Your task to perform on an android device: install app "Instagram" Image 0: 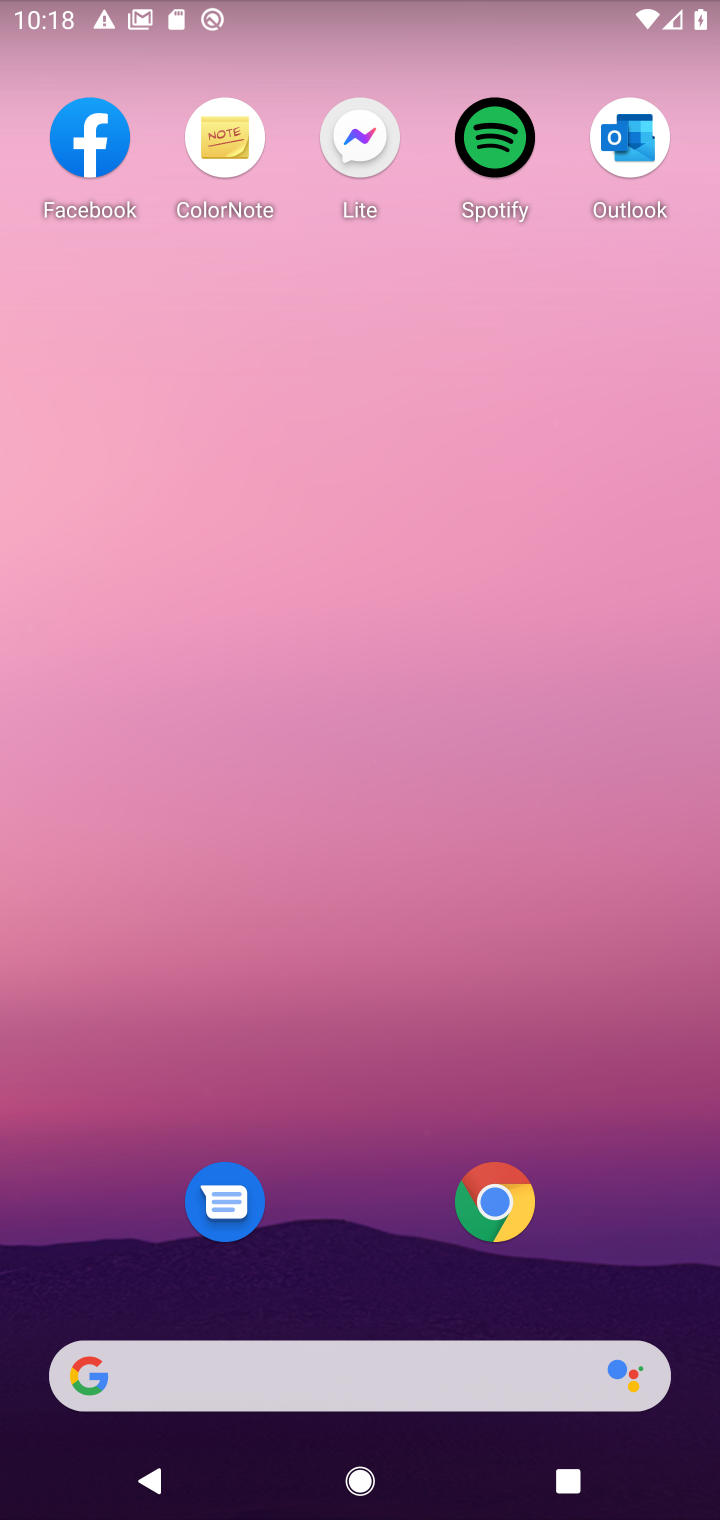
Step 0: drag from (413, 1346) to (520, 141)
Your task to perform on an android device: install app "Instagram" Image 1: 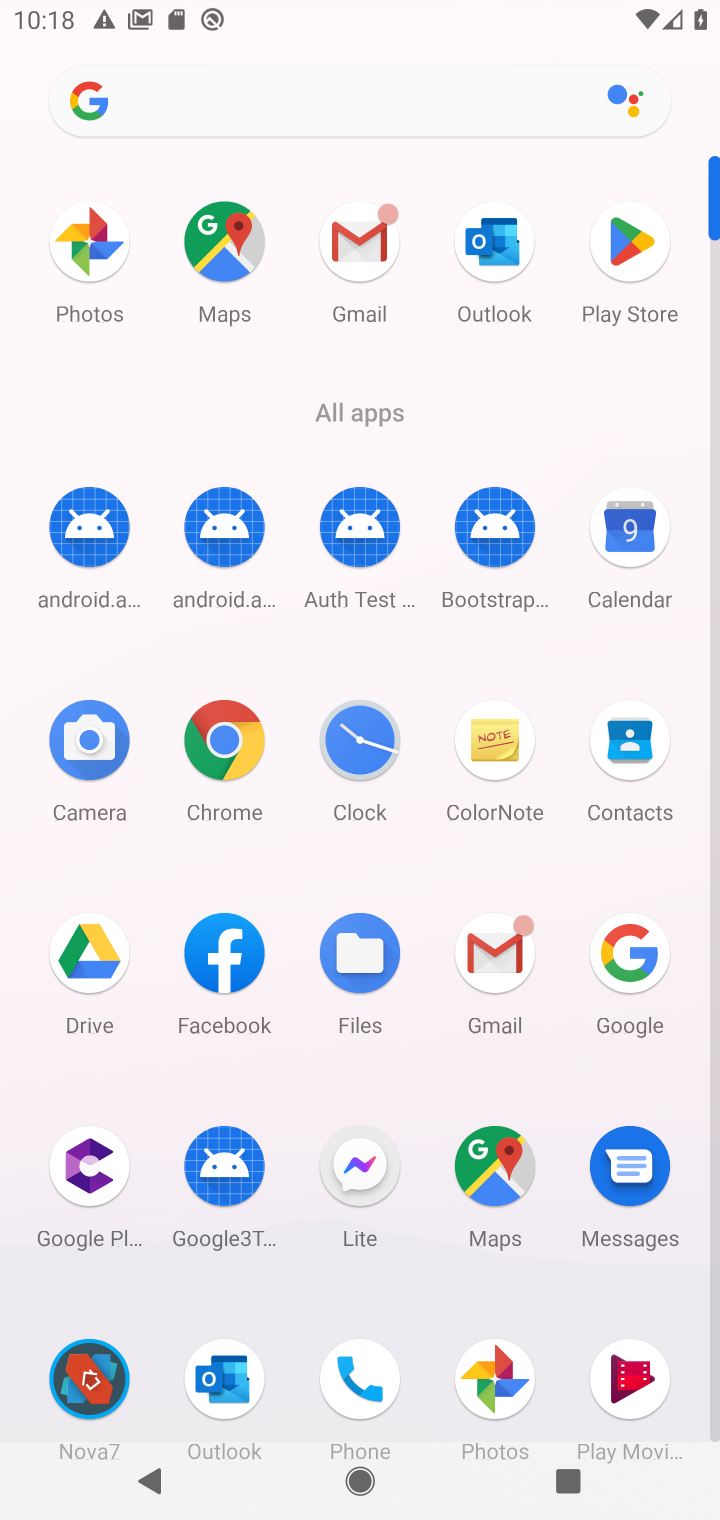
Step 1: drag from (411, 1312) to (394, 409)
Your task to perform on an android device: install app "Instagram" Image 2: 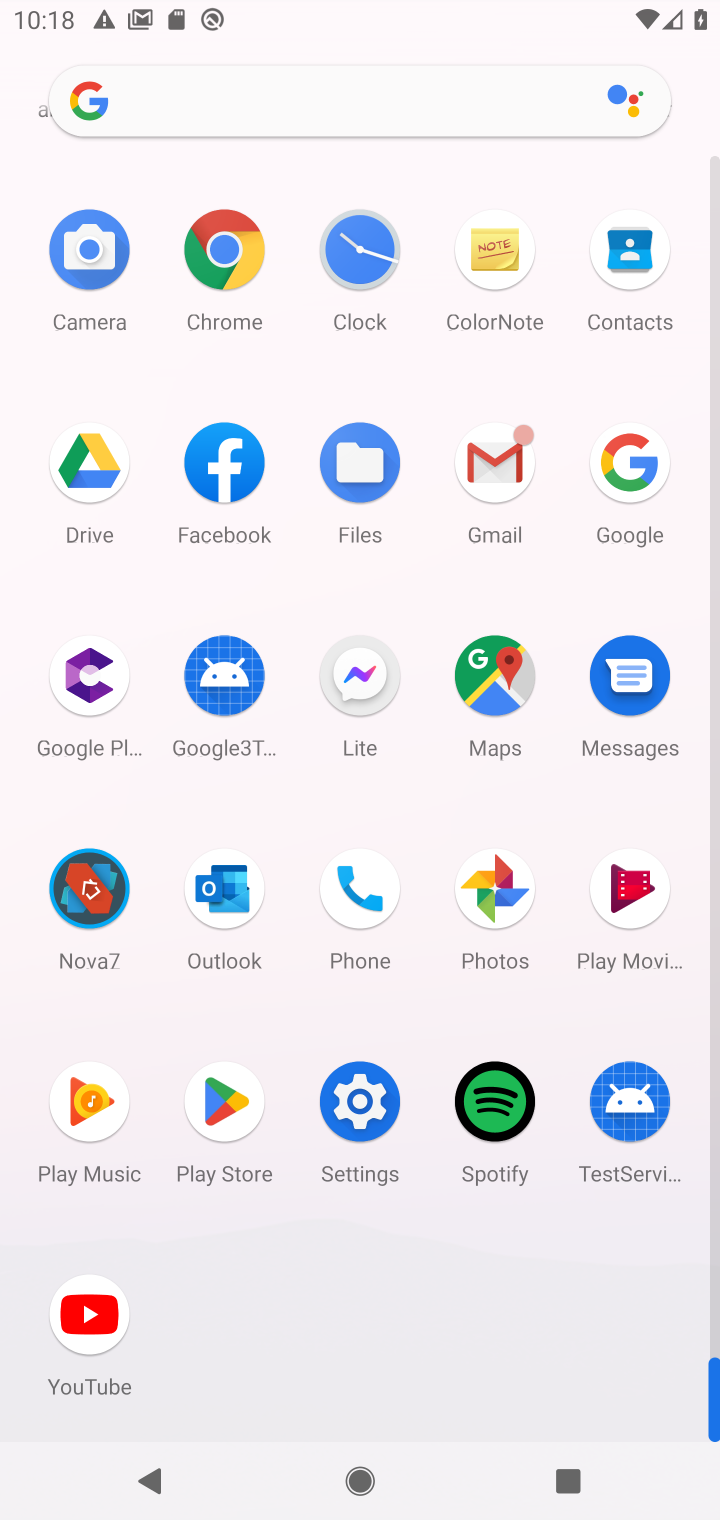
Step 2: click (231, 1123)
Your task to perform on an android device: install app "Instagram" Image 3: 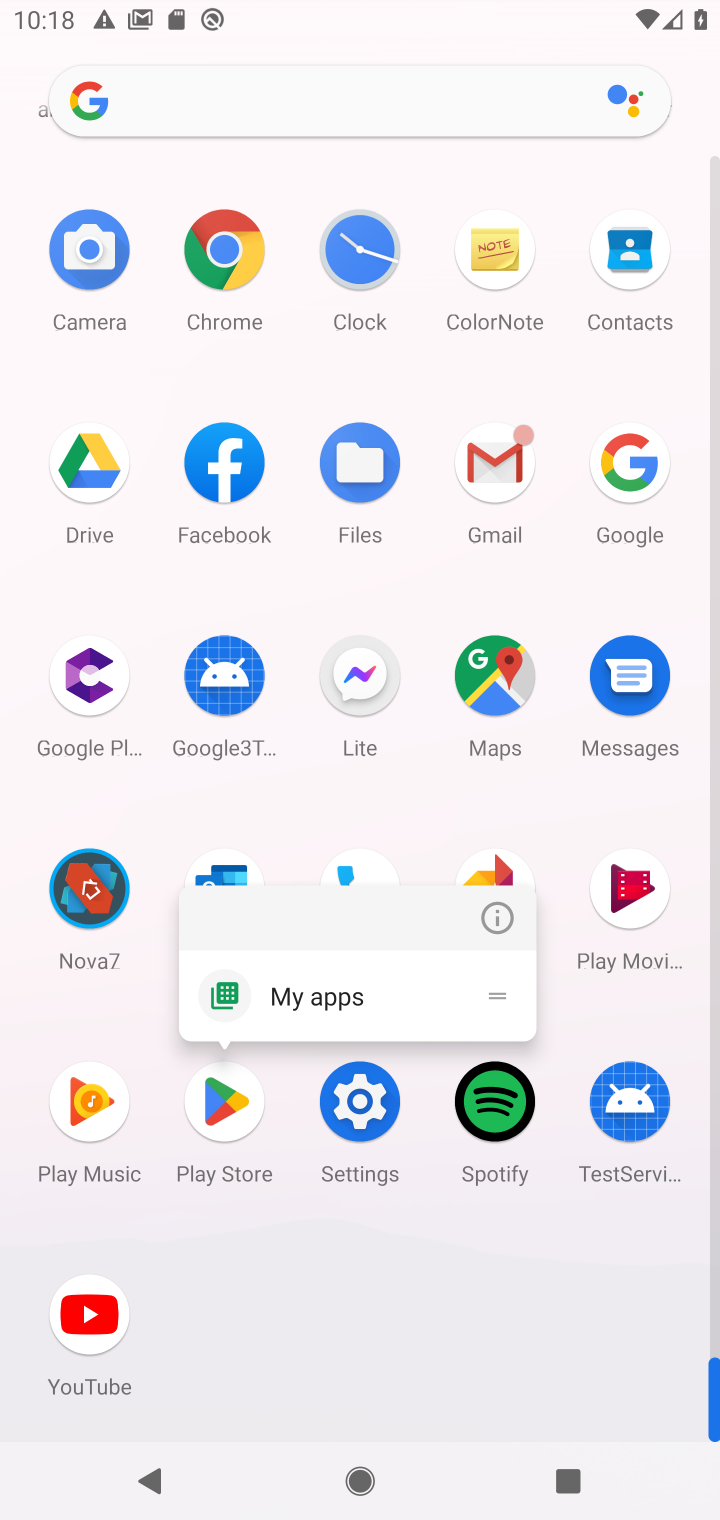
Step 3: click (221, 1150)
Your task to perform on an android device: install app "Instagram" Image 4: 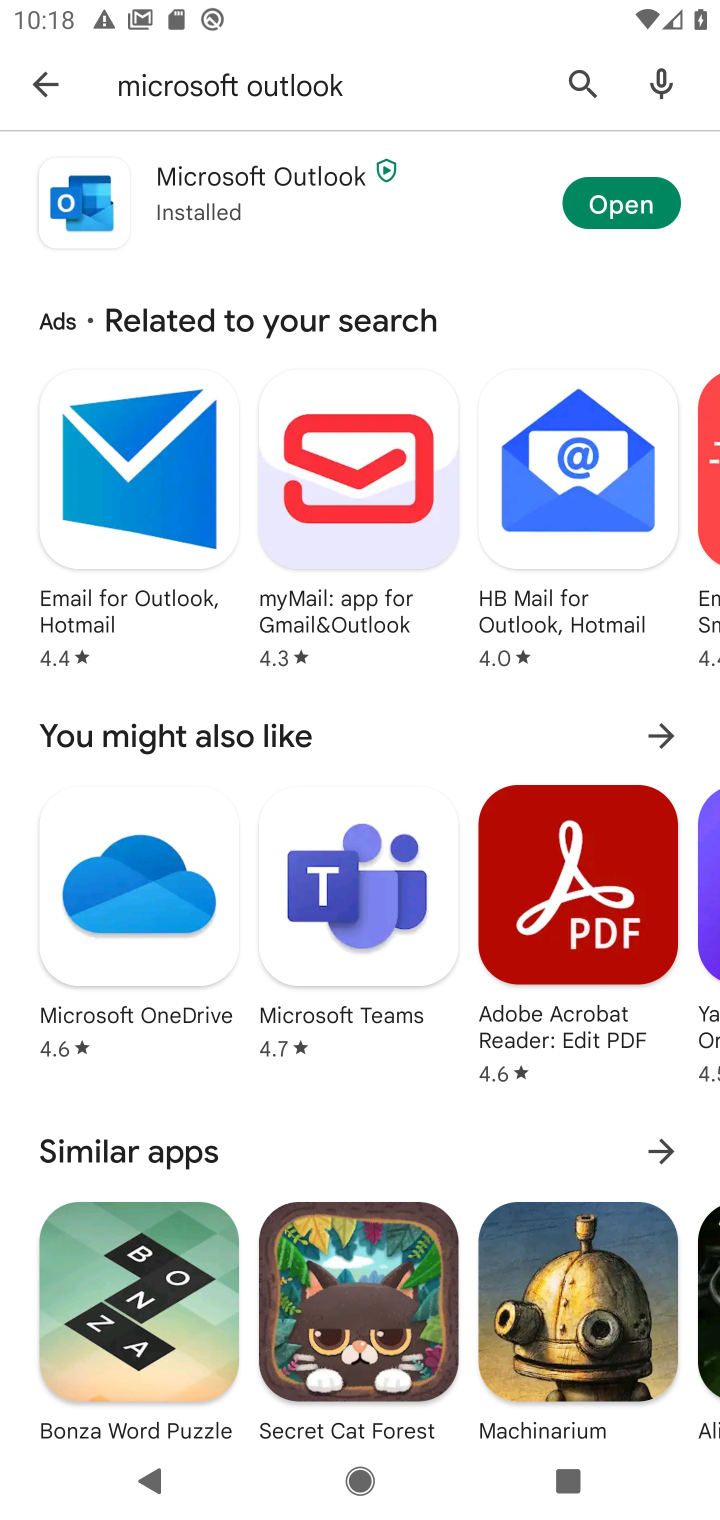
Step 4: click (580, 87)
Your task to perform on an android device: install app "Instagram" Image 5: 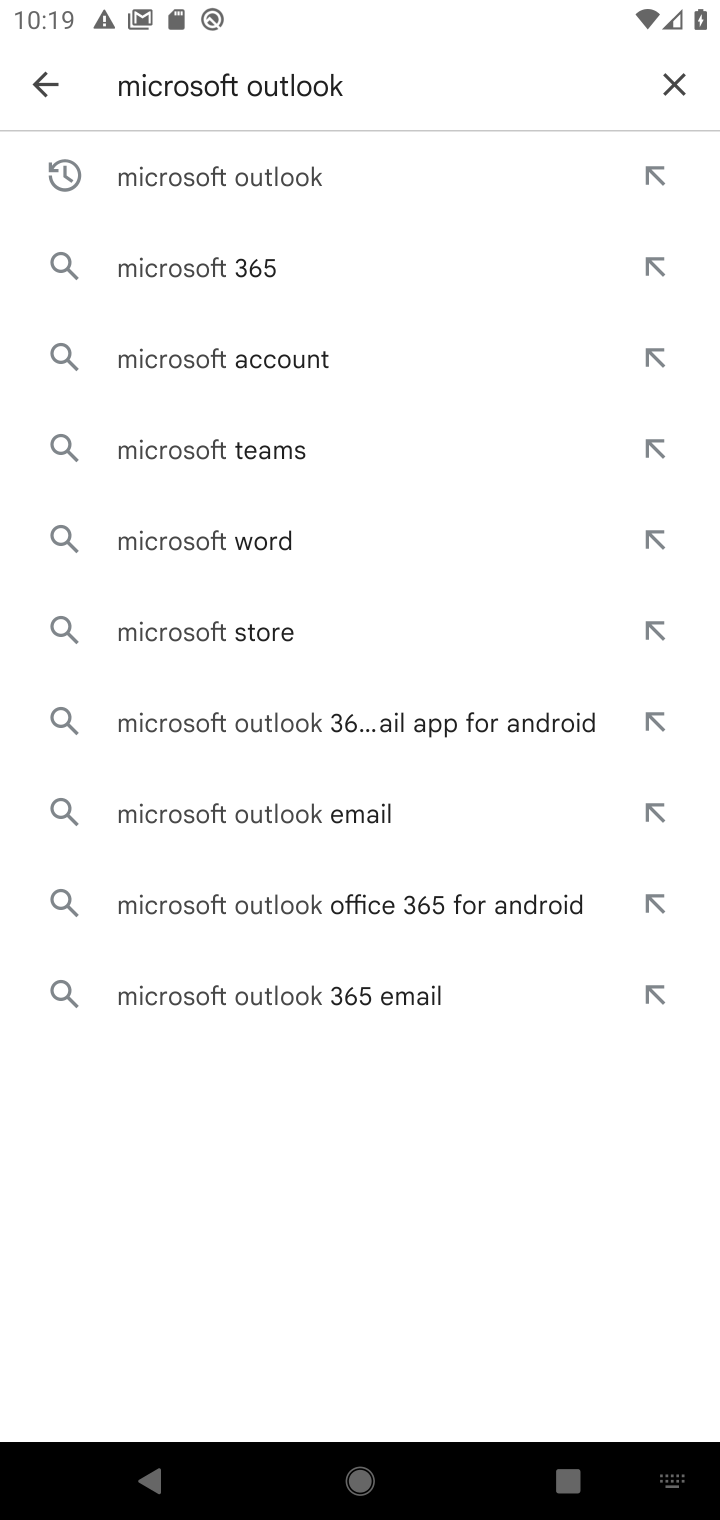
Step 5: click (678, 79)
Your task to perform on an android device: install app "Instagram" Image 6: 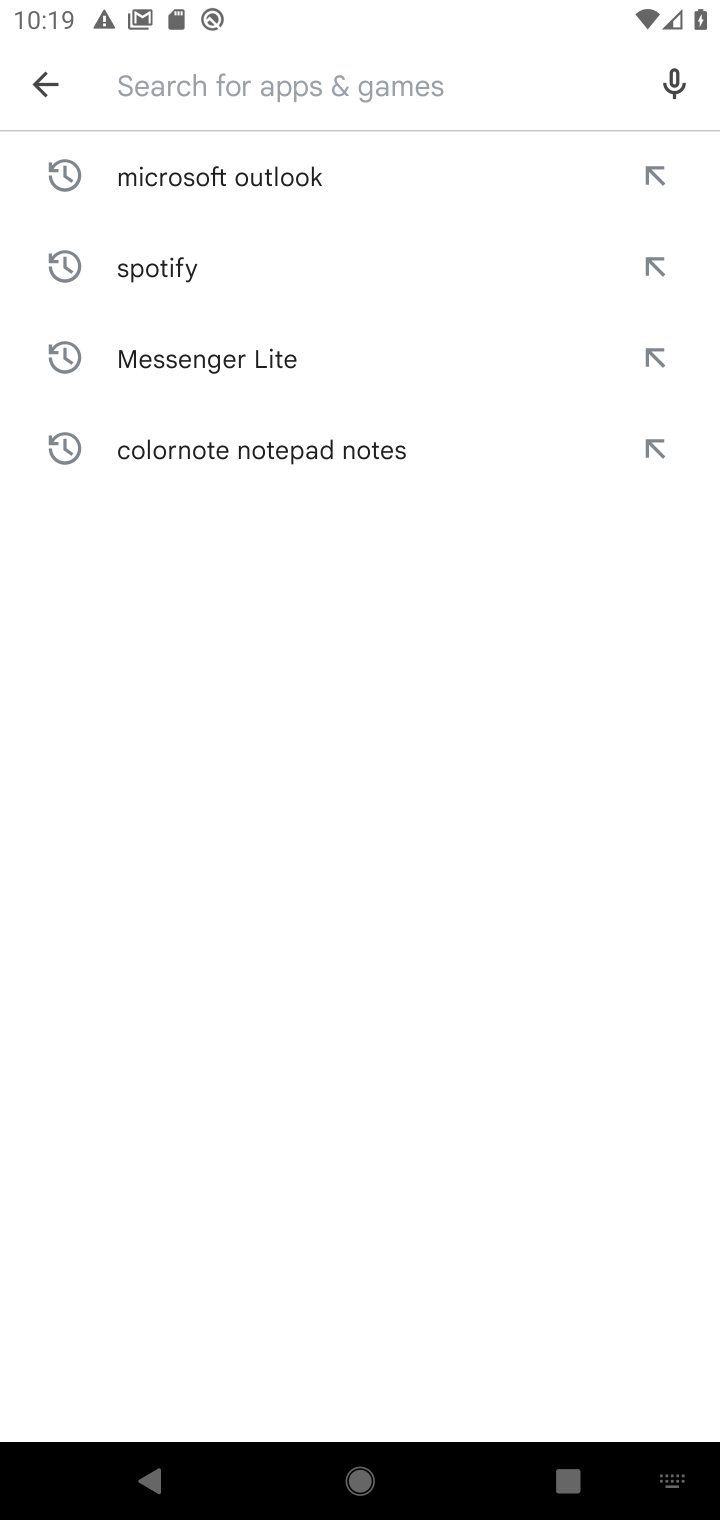
Step 6: type "instagram"
Your task to perform on an android device: install app "Instagram" Image 7: 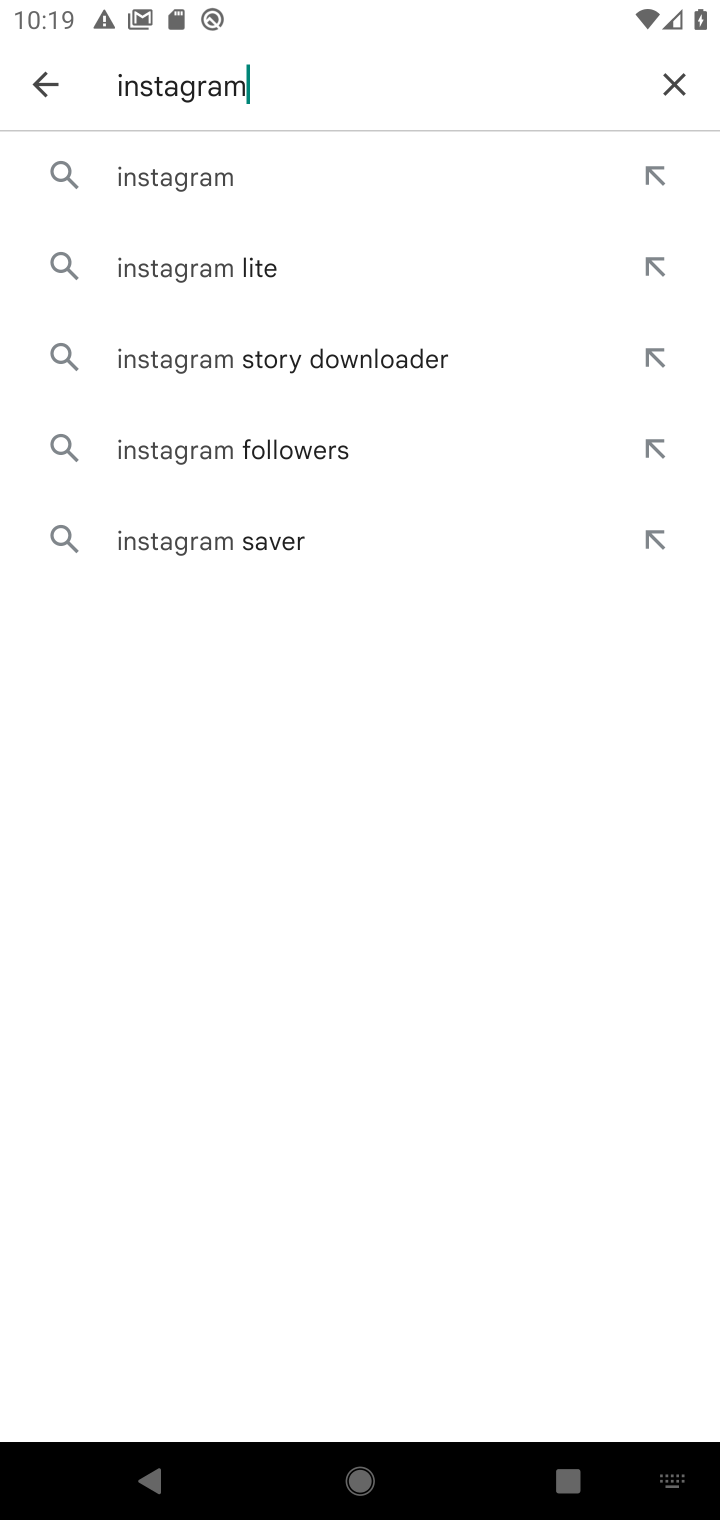
Step 7: click (187, 176)
Your task to perform on an android device: install app "Instagram" Image 8: 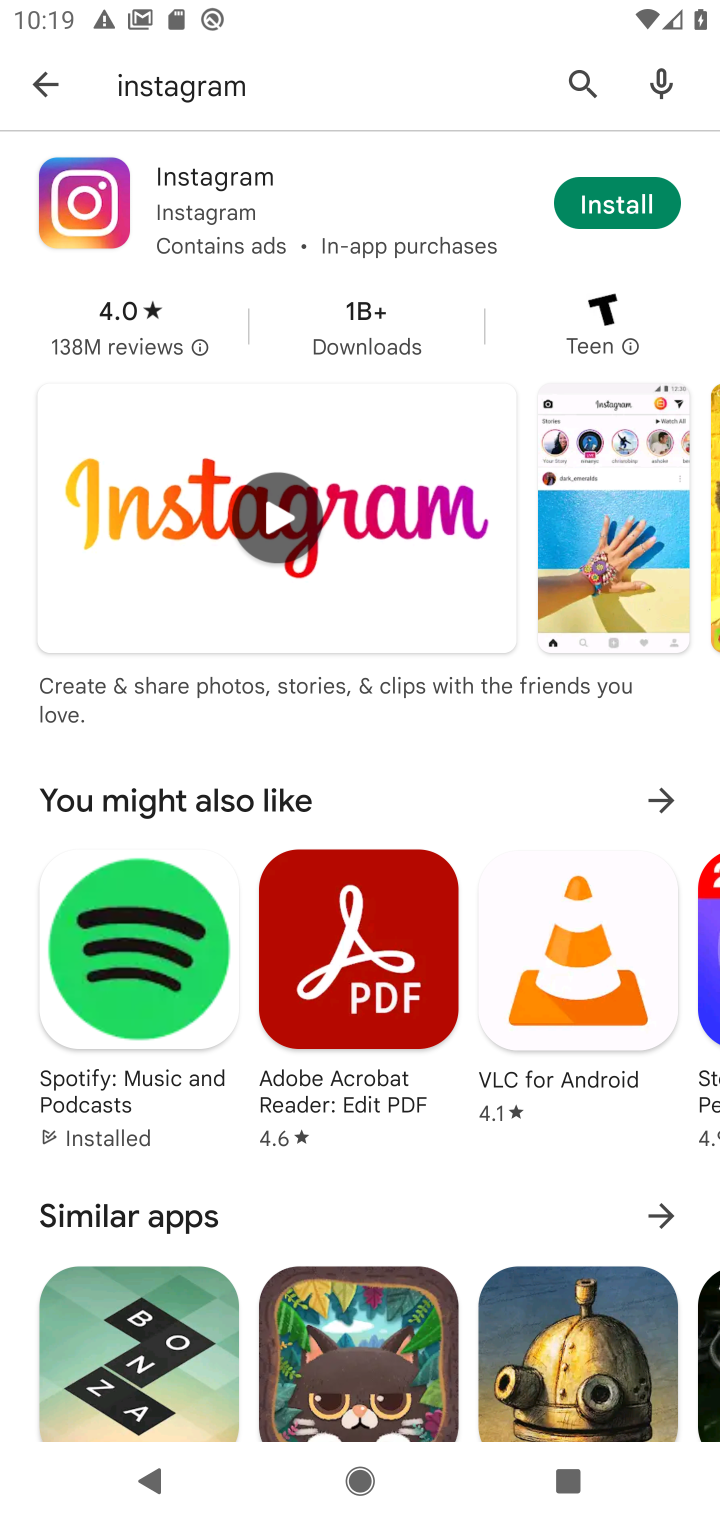
Step 8: click (585, 207)
Your task to perform on an android device: install app "Instagram" Image 9: 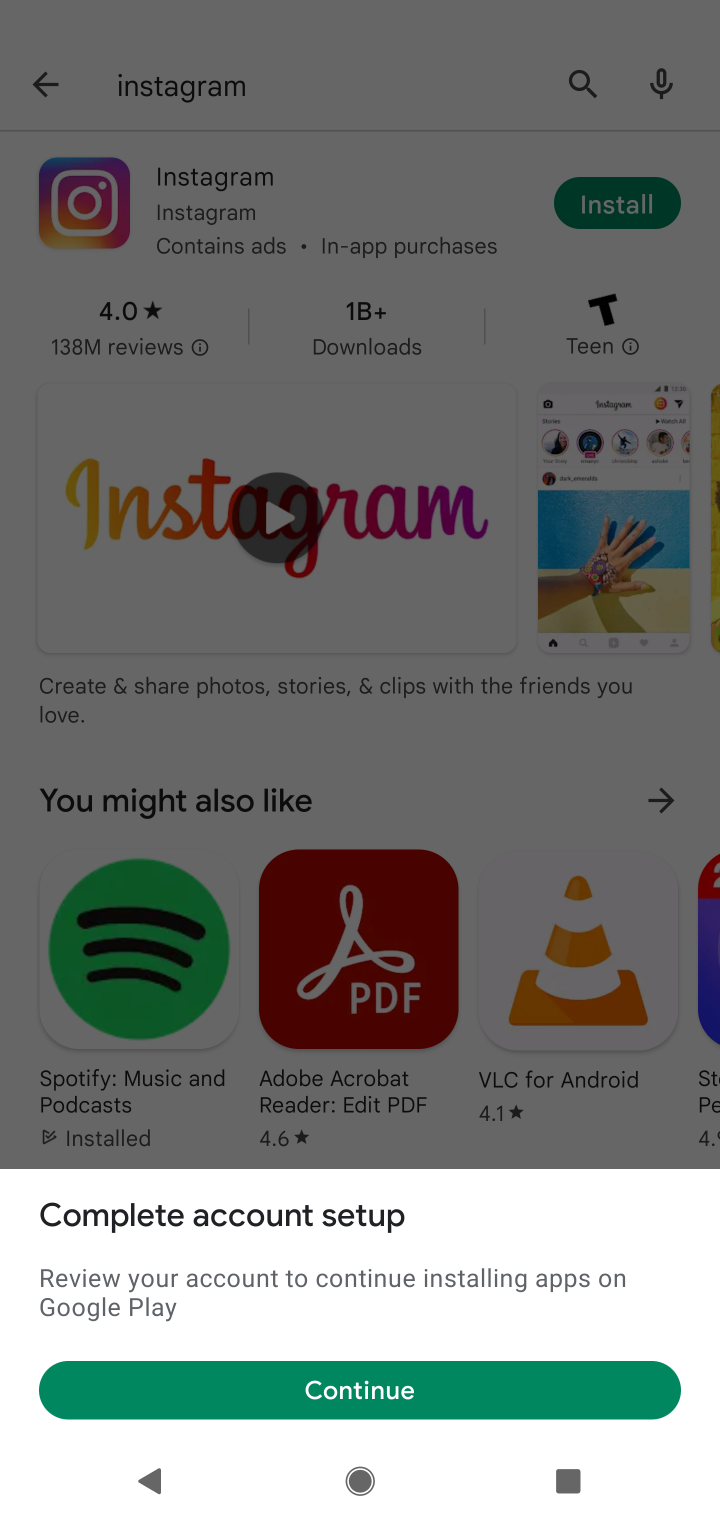
Step 9: click (387, 1420)
Your task to perform on an android device: install app "Instagram" Image 10: 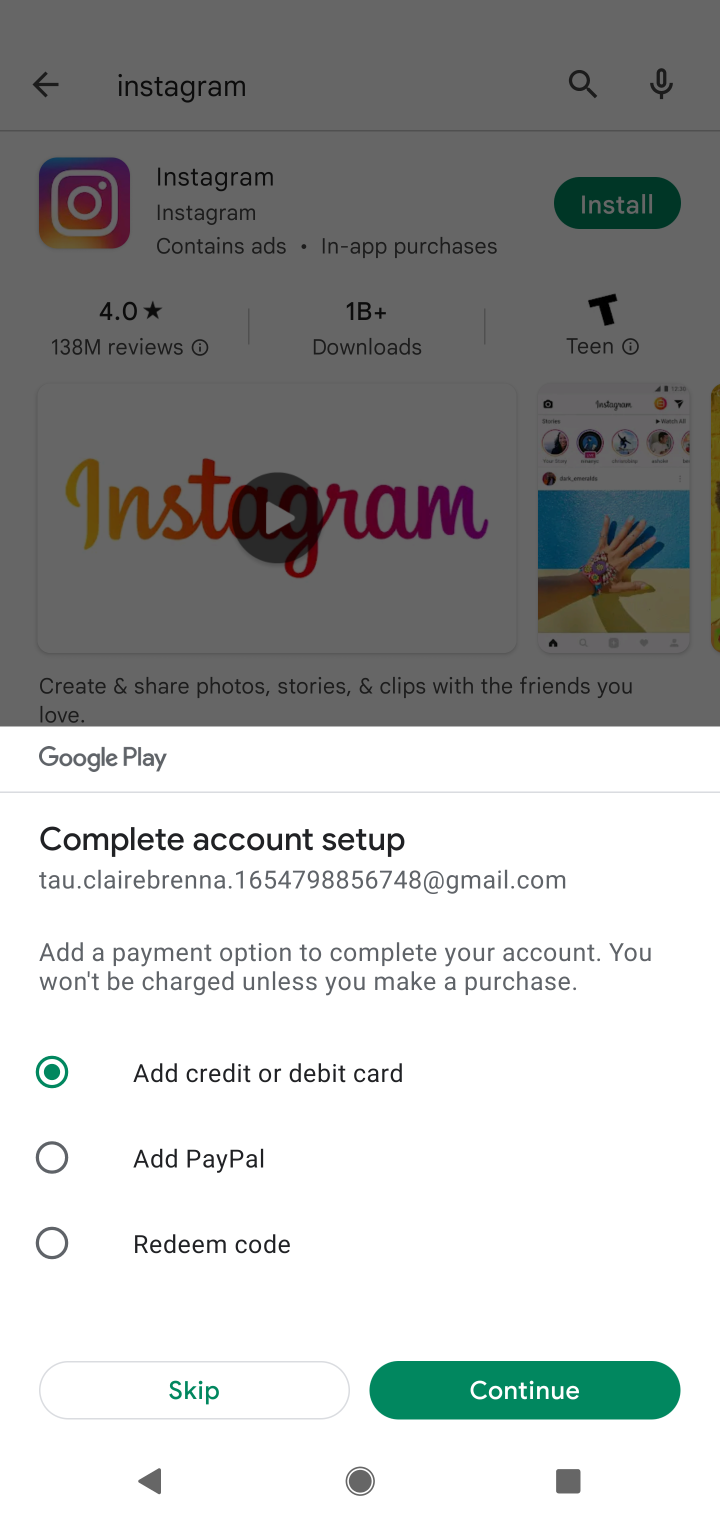
Step 10: click (260, 1397)
Your task to perform on an android device: install app "Instagram" Image 11: 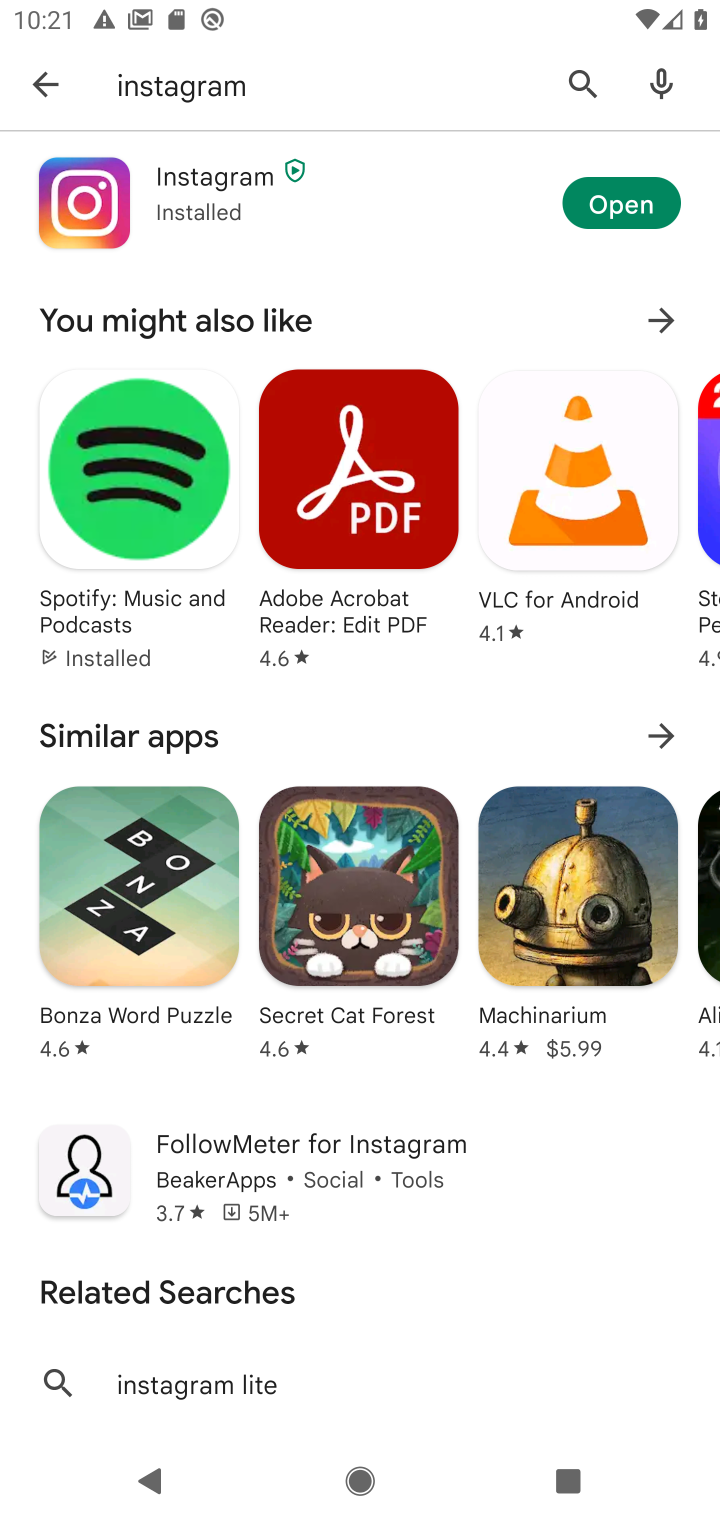
Step 11: task complete